Your task to perform on an android device: check android version Image 0: 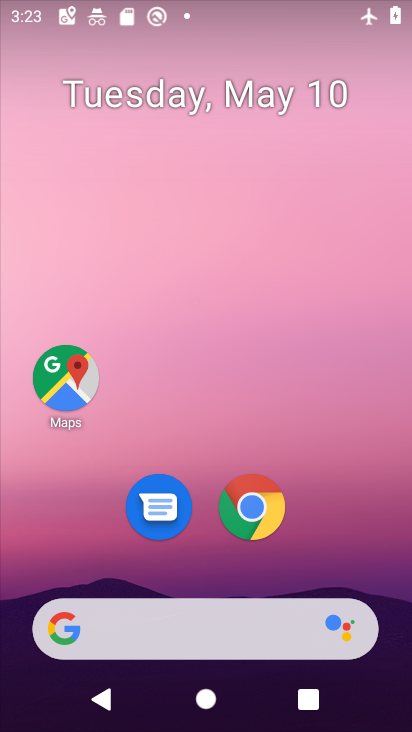
Step 0: drag from (211, 493) to (214, 209)
Your task to perform on an android device: check android version Image 1: 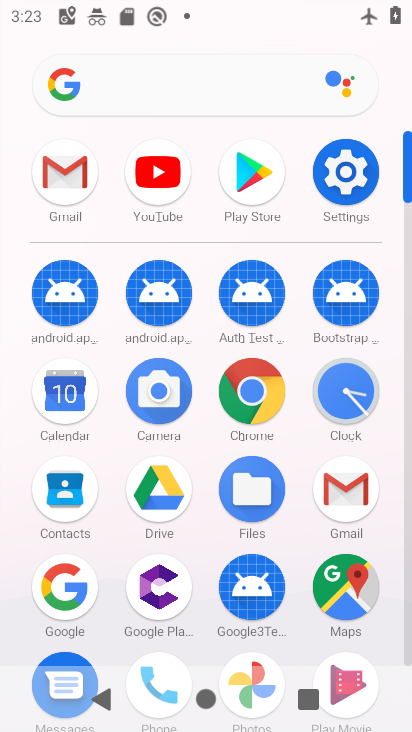
Step 1: click (335, 179)
Your task to perform on an android device: check android version Image 2: 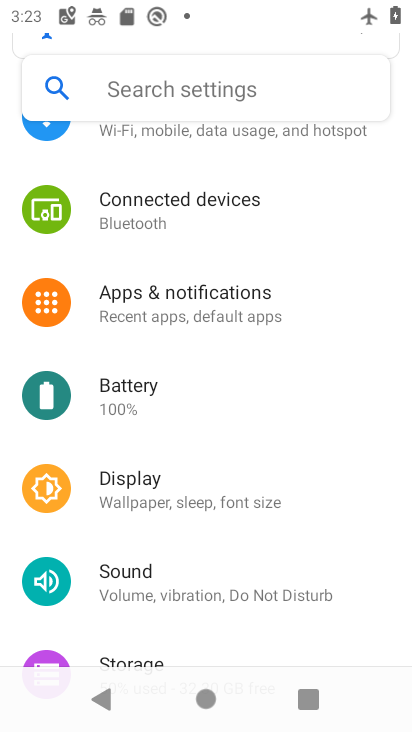
Step 2: drag from (168, 582) to (199, 336)
Your task to perform on an android device: check android version Image 3: 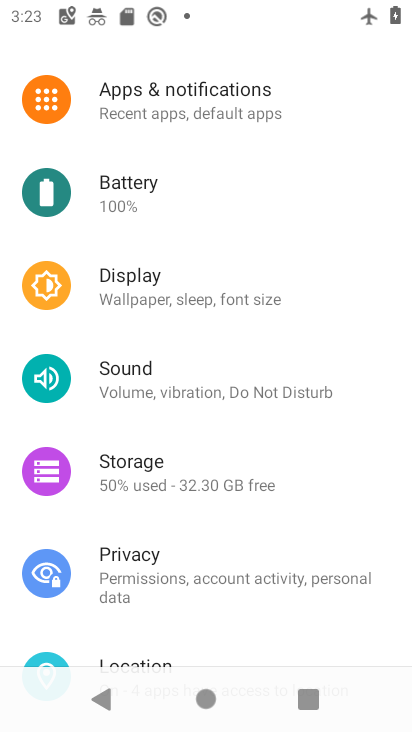
Step 3: drag from (212, 586) to (218, 180)
Your task to perform on an android device: check android version Image 4: 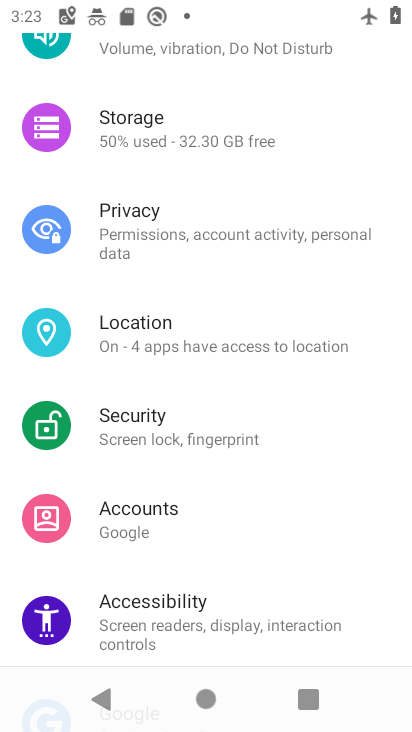
Step 4: drag from (187, 589) to (219, 107)
Your task to perform on an android device: check android version Image 5: 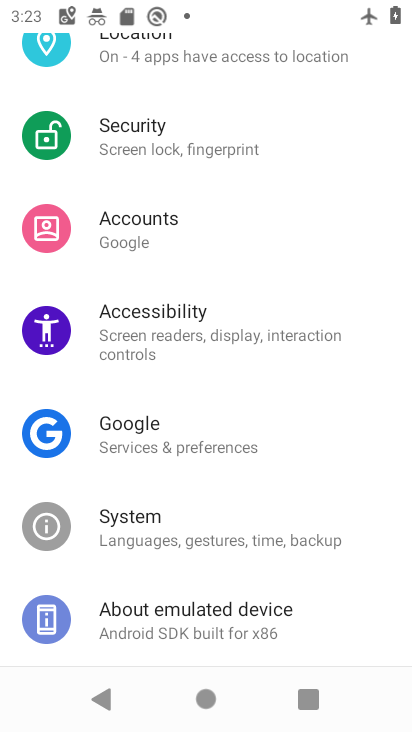
Step 5: click (146, 608)
Your task to perform on an android device: check android version Image 6: 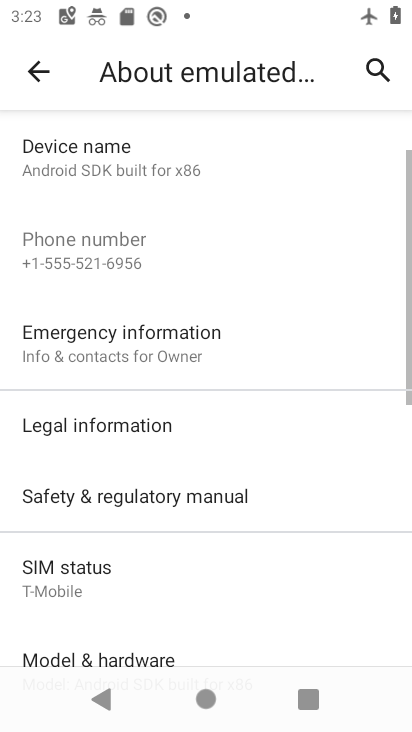
Step 6: drag from (139, 551) to (164, 301)
Your task to perform on an android device: check android version Image 7: 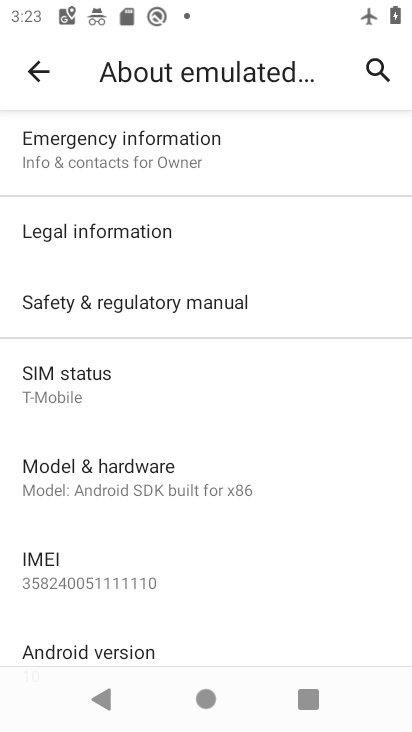
Step 7: drag from (109, 587) to (143, 349)
Your task to perform on an android device: check android version Image 8: 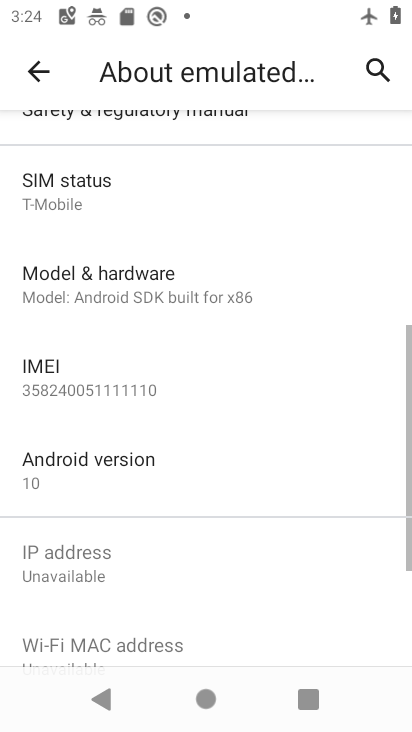
Step 8: click (94, 461)
Your task to perform on an android device: check android version Image 9: 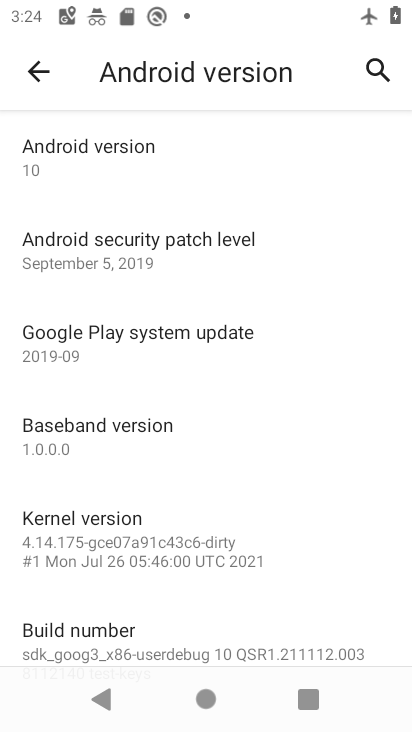
Step 9: task complete